Your task to perform on an android device: set the stopwatch Image 0: 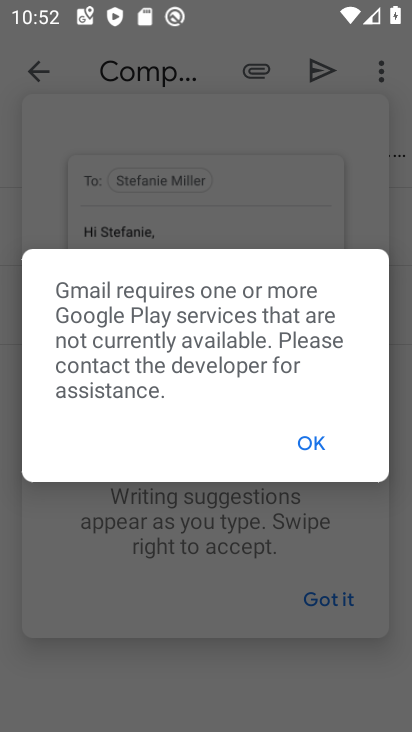
Step 0: press home button
Your task to perform on an android device: set the stopwatch Image 1: 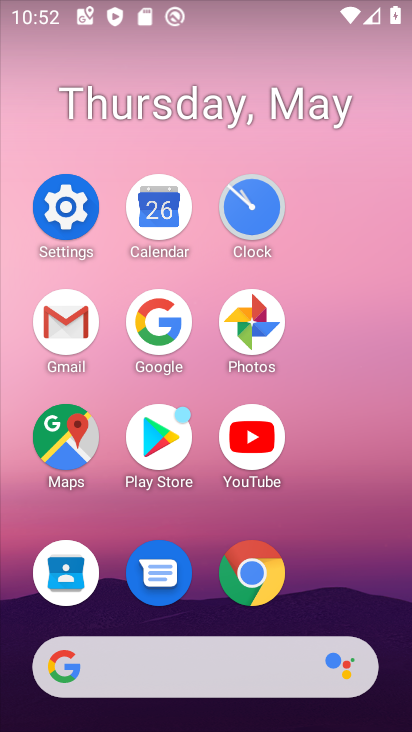
Step 1: click (249, 219)
Your task to perform on an android device: set the stopwatch Image 2: 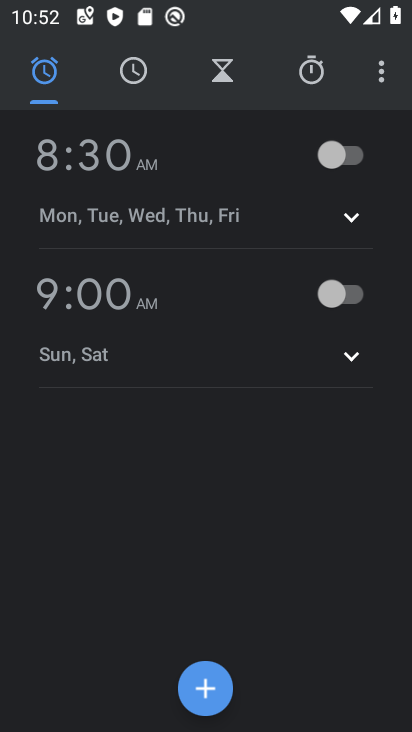
Step 2: click (305, 70)
Your task to perform on an android device: set the stopwatch Image 3: 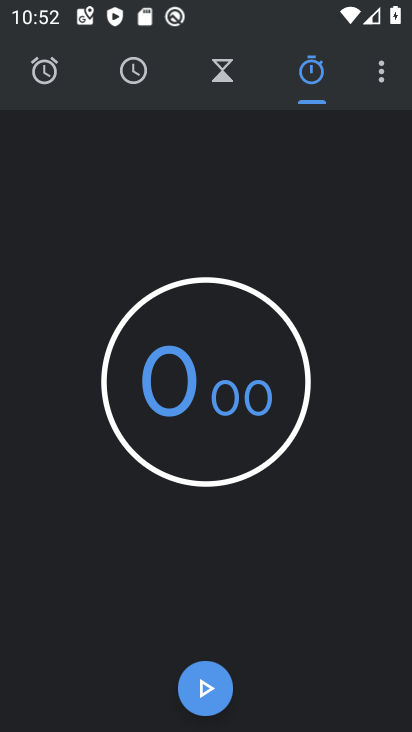
Step 3: click (216, 671)
Your task to perform on an android device: set the stopwatch Image 4: 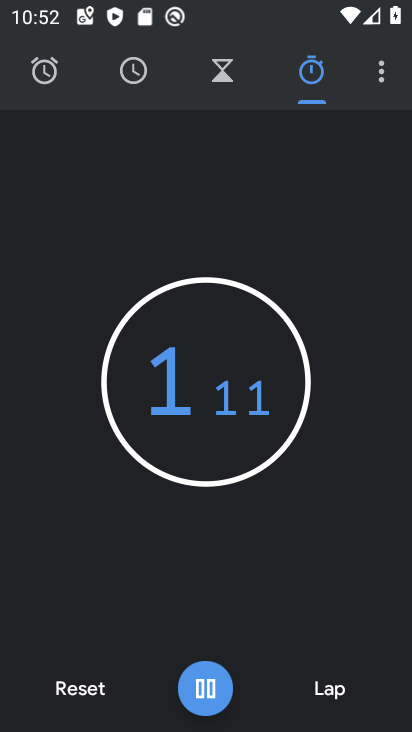
Step 4: task complete